Your task to perform on an android device: When is my next meeting? Image 0: 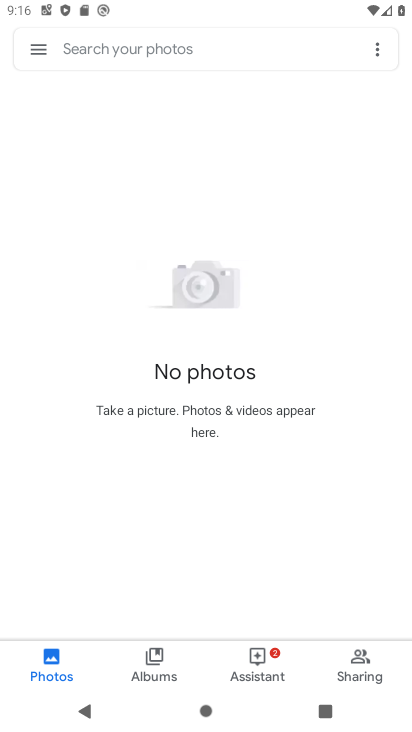
Step 0: press home button
Your task to perform on an android device: When is my next meeting? Image 1: 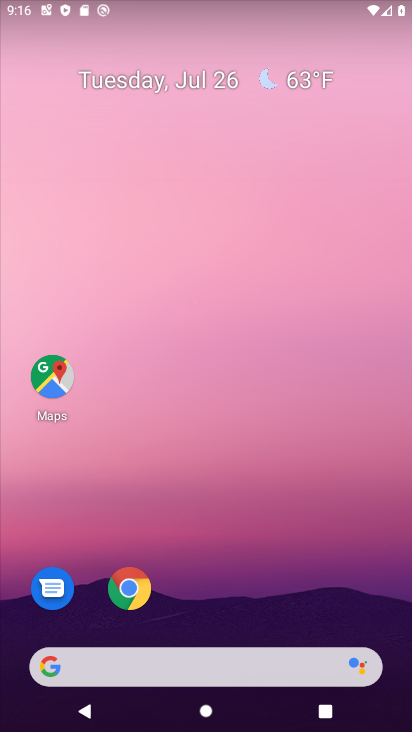
Step 1: click (161, 97)
Your task to perform on an android device: When is my next meeting? Image 2: 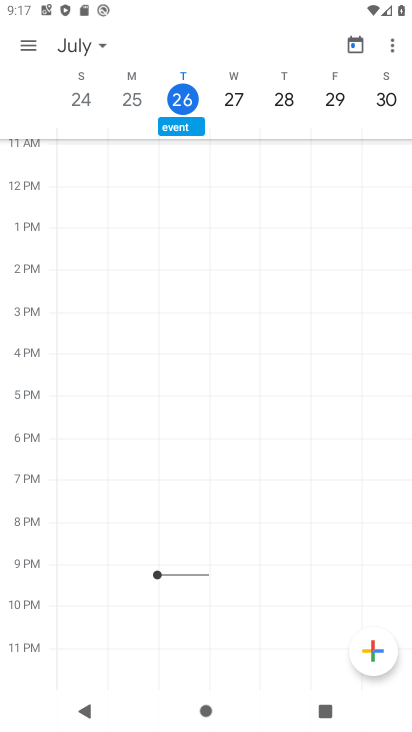
Step 2: task complete